Your task to perform on an android device: toggle location history Image 0: 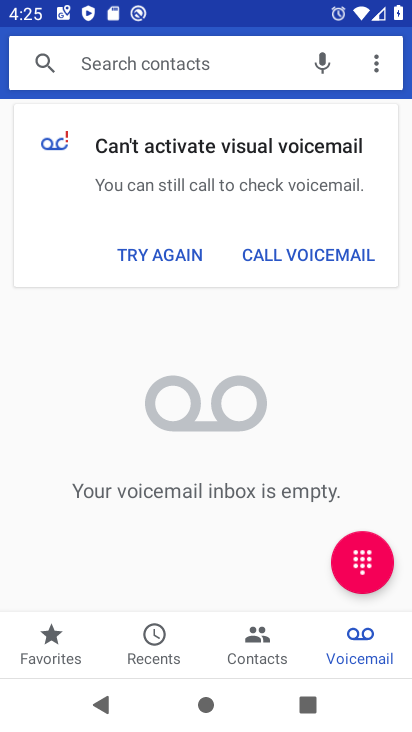
Step 0: press home button
Your task to perform on an android device: toggle location history Image 1: 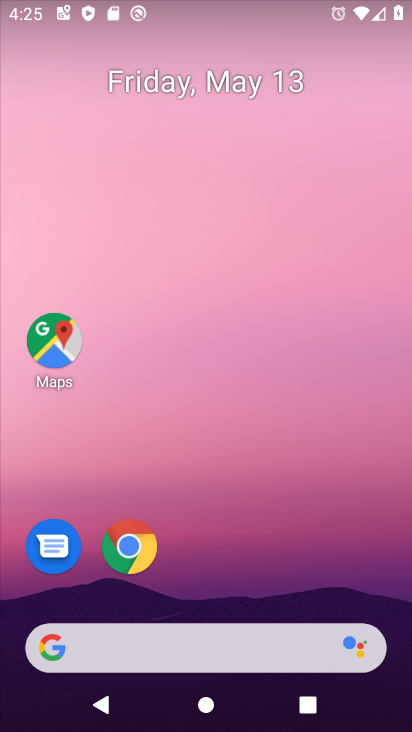
Step 1: drag from (221, 535) to (361, 25)
Your task to perform on an android device: toggle location history Image 2: 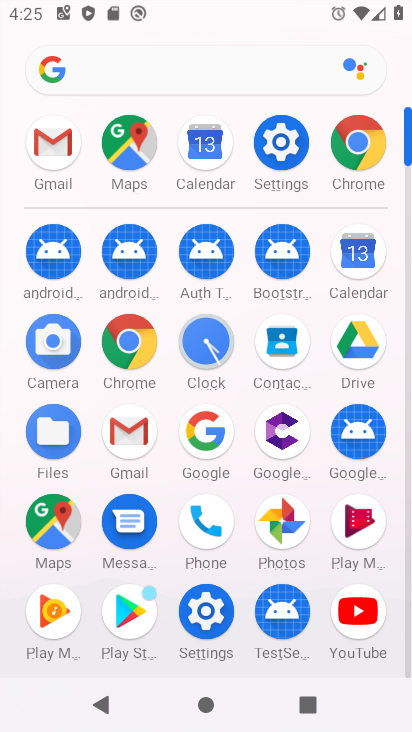
Step 2: click (280, 168)
Your task to perform on an android device: toggle location history Image 3: 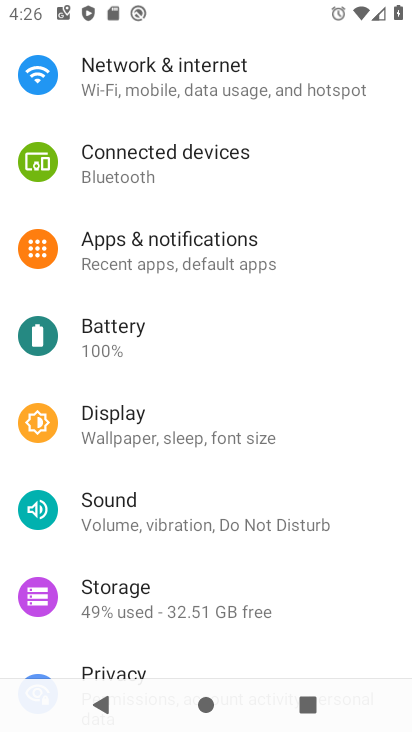
Step 3: drag from (174, 602) to (246, 225)
Your task to perform on an android device: toggle location history Image 4: 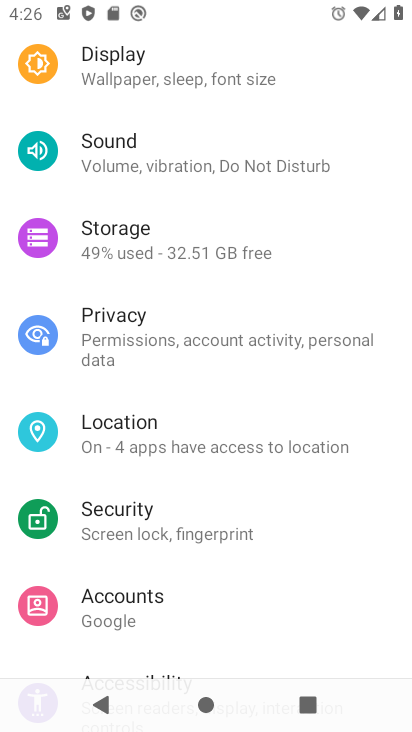
Step 4: click (155, 426)
Your task to perform on an android device: toggle location history Image 5: 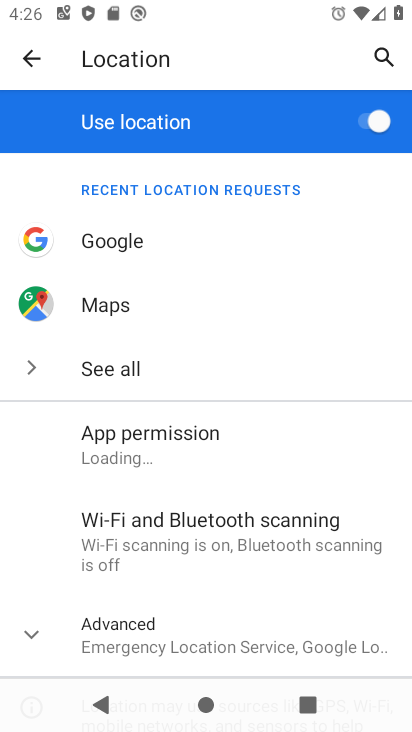
Step 5: drag from (204, 361) to (212, 313)
Your task to perform on an android device: toggle location history Image 6: 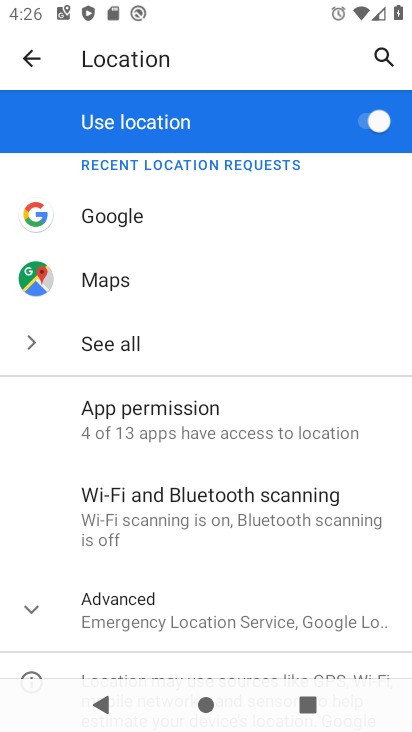
Step 6: click (129, 607)
Your task to perform on an android device: toggle location history Image 7: 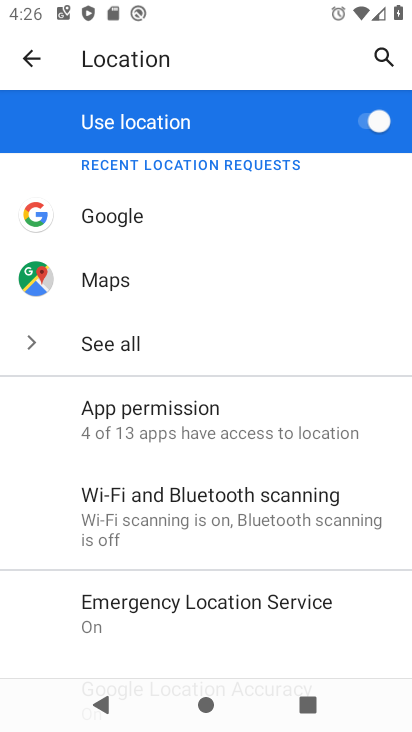
Step 7: drag from (212, 619) to (304, 228)
Your task to perform on an android device: toggle location history Image 8: 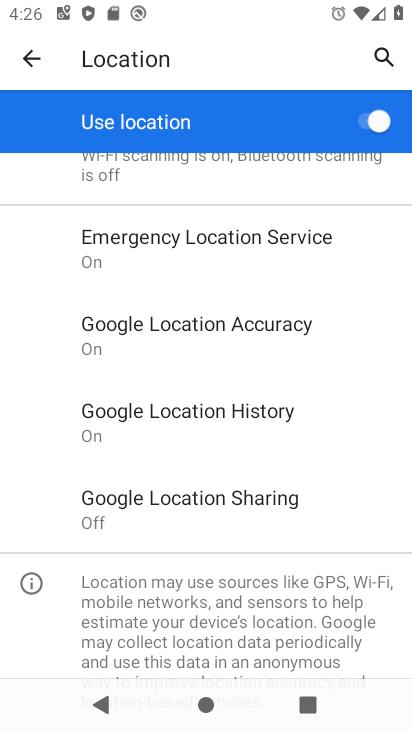
Step 8: click (197, 416)
Your task to perform on an android device: toggle location history Image 9: 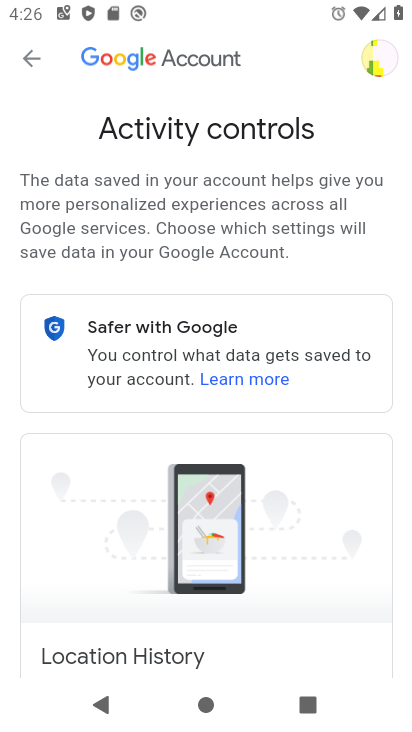
Step 9: drag from (186, 521) to (278, 94)
Your task to perform on an android device: toggle location history Image 10: 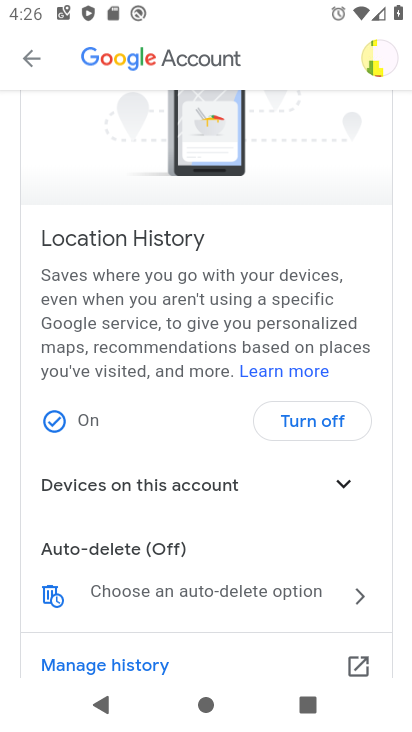
Step 10: click (291, 418)
Your task to perform on an android device: toggle location history Image 11: 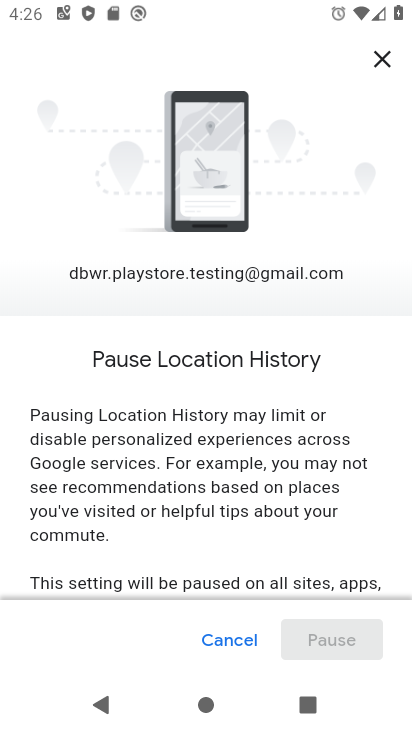
Step 11: drag from (214, 567) to (273, 155)
Your task to perform on an android device: toggle location history Image 12: 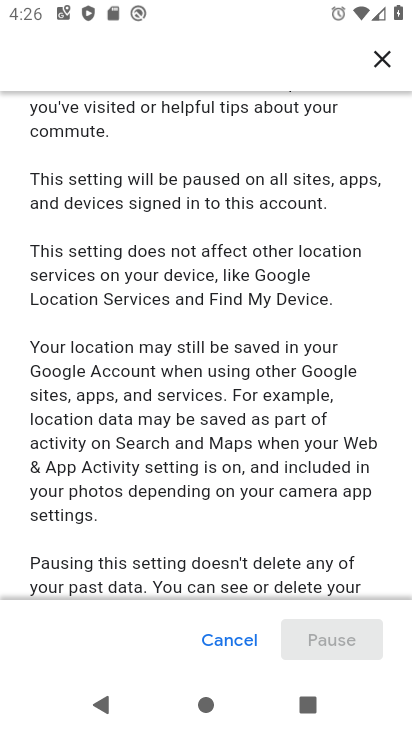
Step 12: drag from (243, 464) to (336, 18)
Your task to perform on an android device: toggle location history Image 13: 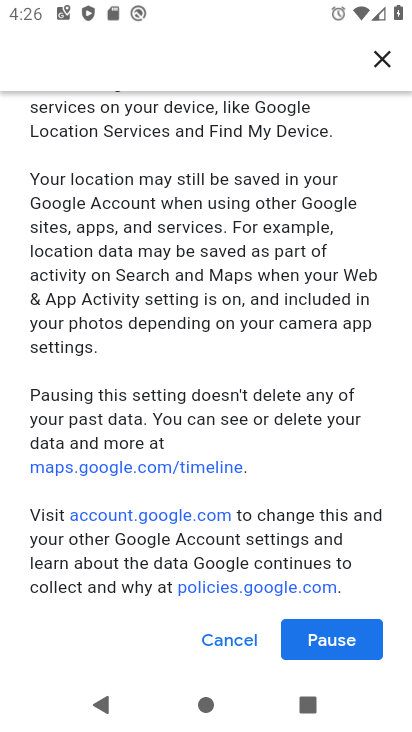
Step 13: click (326, 644)
Your task to perform on an android device: toggle location history Image 14: 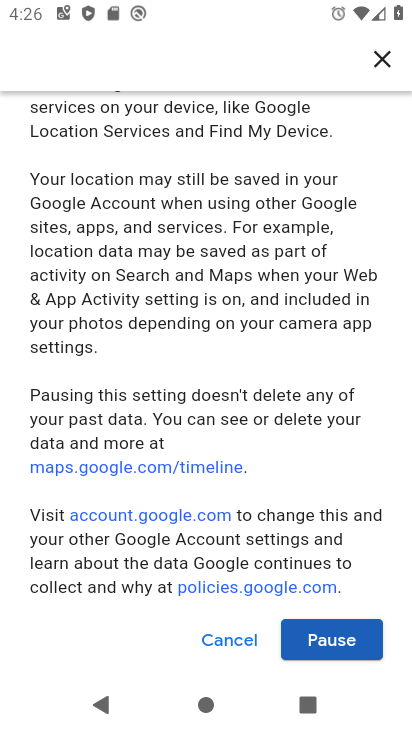
Step 14: click (331, 645)
Your task to perform on an android device: toggle location history Image 15: 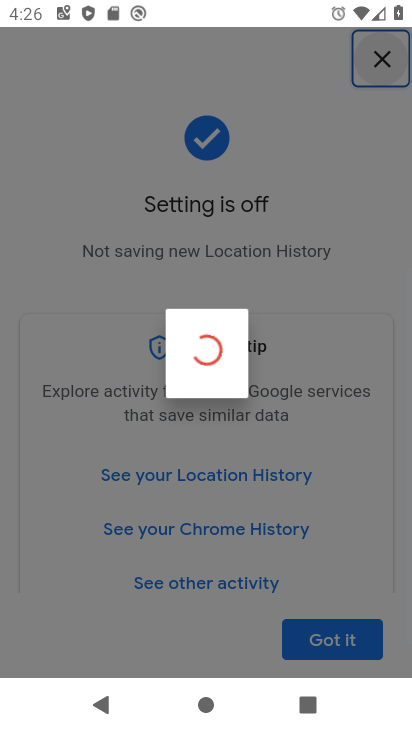
Step 15: click (334, 639)
Your task to perform on an android device: toggle location history Image 16: 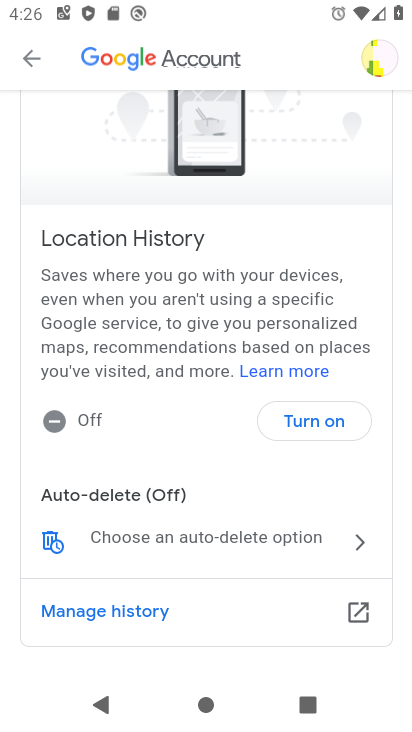
Step 16: task complete